Your task to perform on an android device: Go to calendar. Show me events next week Image 0: 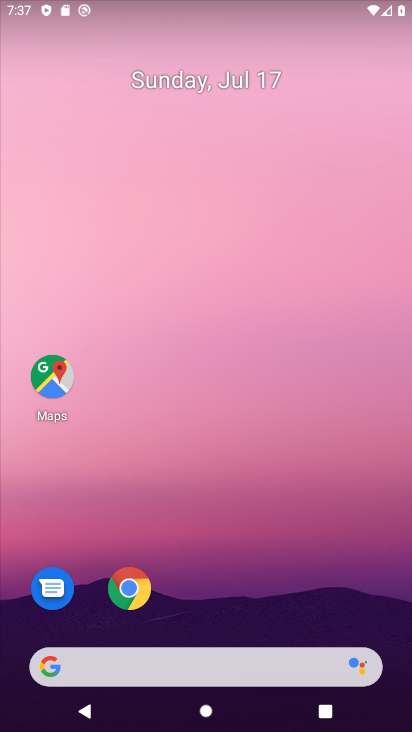
Step 0: drag from (219, 725) to (392, 247)
Your task to perform on an android device: Go to calendar. Show me events next week Image 1: 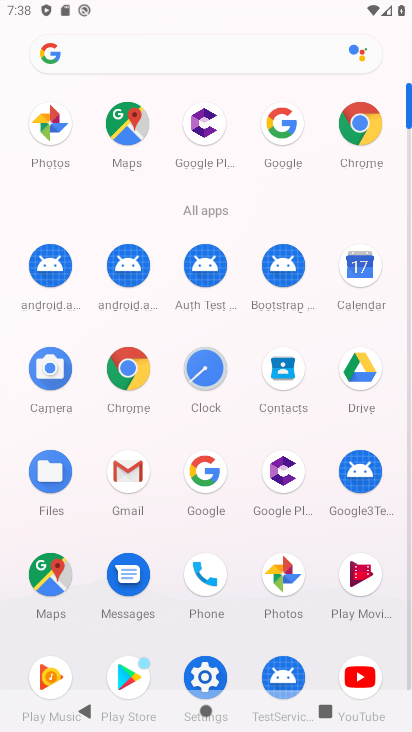
Step 1: click (363, 291)
Your task to perform on an android device: Go to calendar. Show me events next week Image 2: 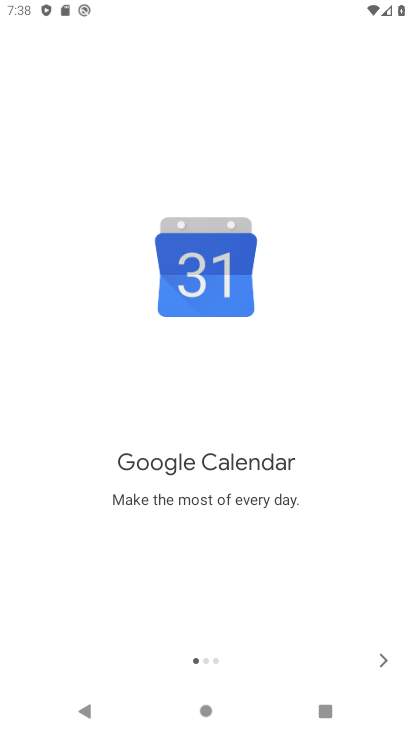
Step 2: click (385, 663)
Your task to perform on an android device: Go to calendar. Show me events next week Image 3: 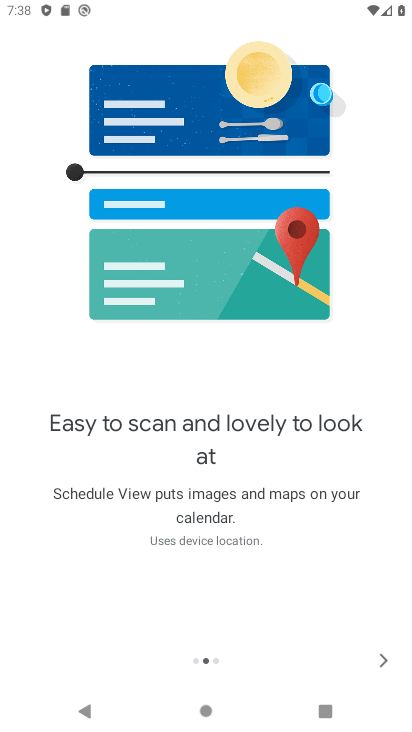
Step 3: click (378, 660)
Your task to perform on an android device: Go to calendar. Show me events next week Image 4: 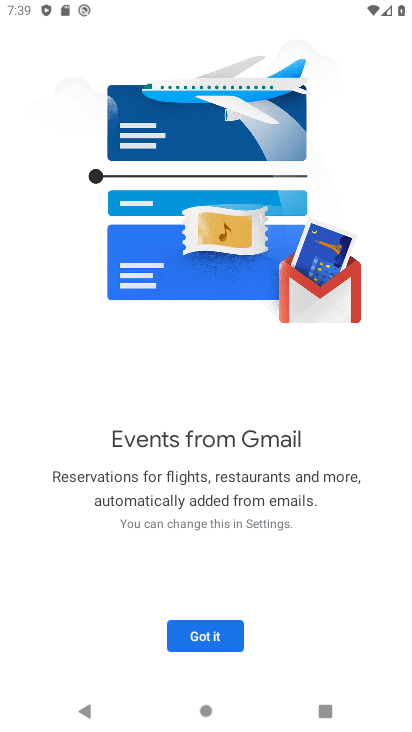
Step 4: click (210, 646)
Your task to perform on an android device: Go to calendar. Show me events next week Image 5: 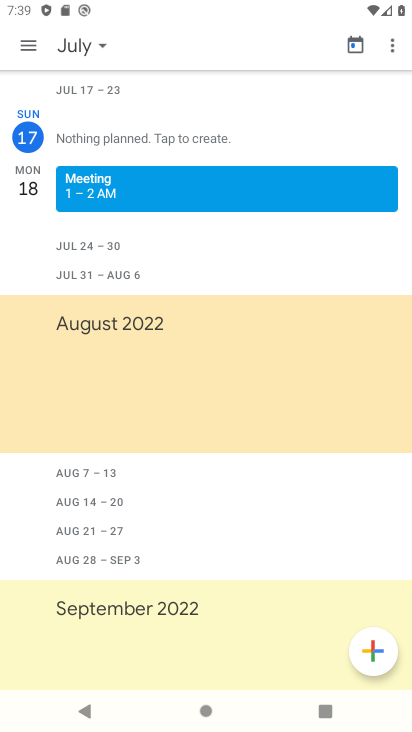
Step 5: click (95, 45)
Your task to perform on an android device: Go to calendar. Show me events next week Image 6: 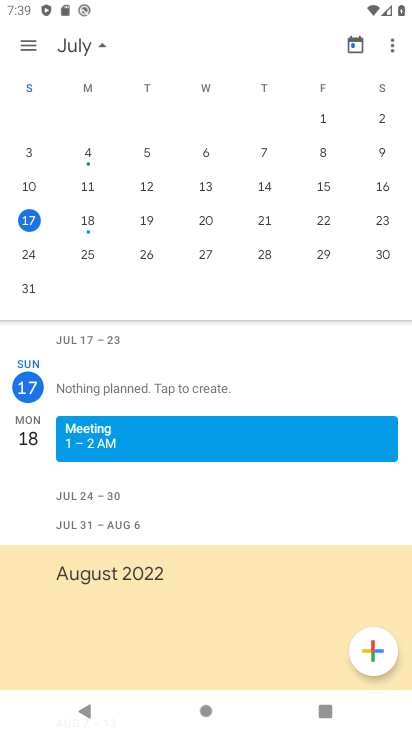
Step 6: click (40, 258)
Your task to perform on an android device: Go to calendar. Show me events next week Image 7: 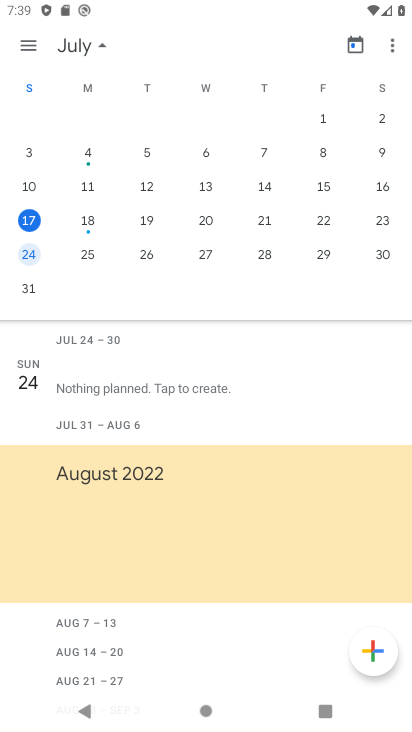
Step 7: task complete